Your task to perform on an android device: Open location settings Image 0: 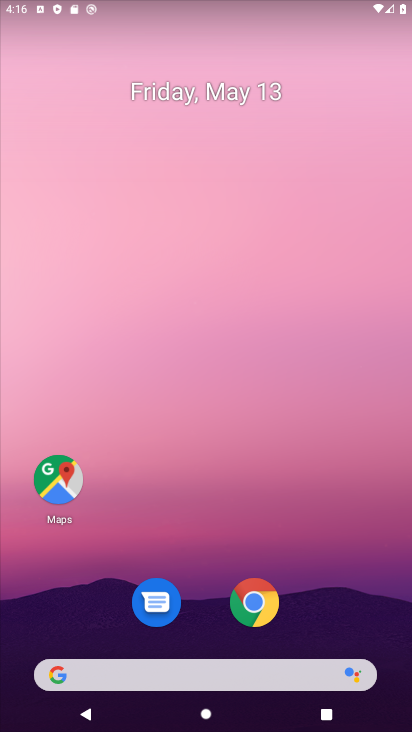
Step 0: drag from (149, 670) to (159, 329)
Your task to perform on an android device: Open location settings Image 1: 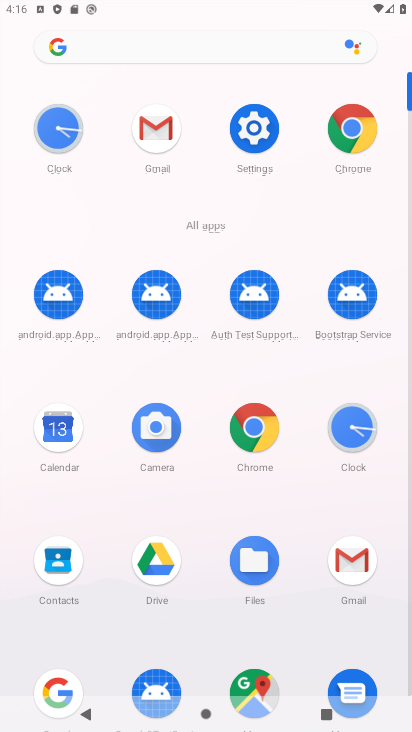
Step 1: click (254, 121)
Your task to perform on an android device: Open location settings Image 2: 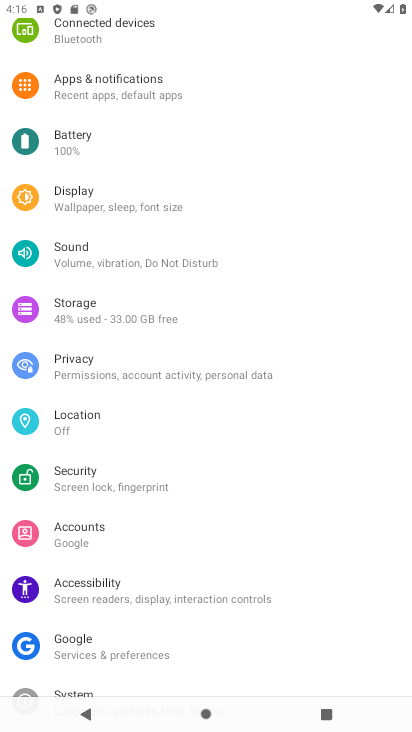
Step 2: click (77, 421)
Your task to perform on an android device: Open location settings Image 3: 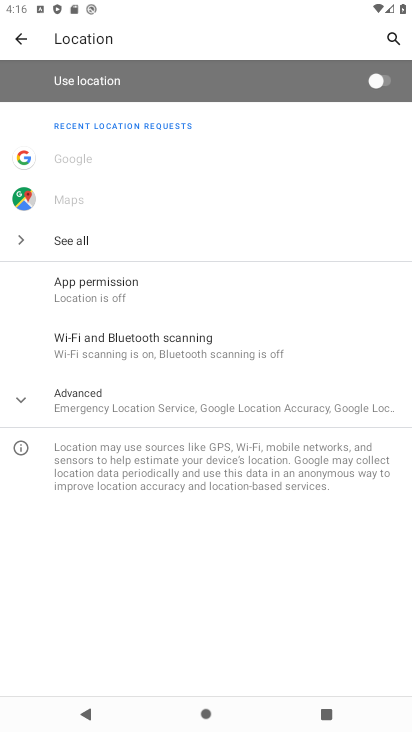
Step 3: click (35, 398)
Your task to perform on an android device: Open location settings Image 4: 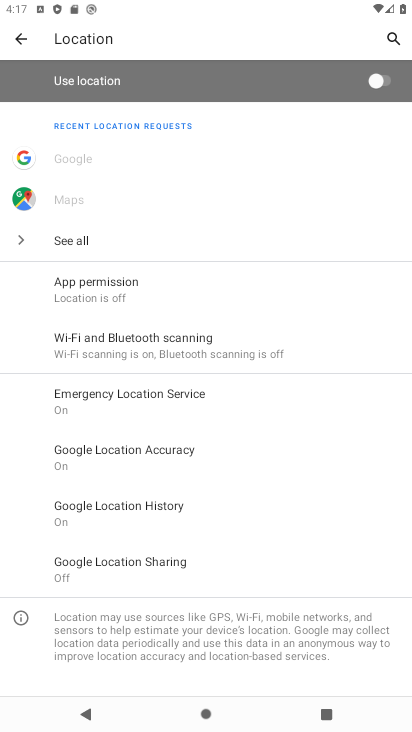
Step 4: task complete